Your task to perform on an android device: move an email to a new category in the gmail app Image 0: 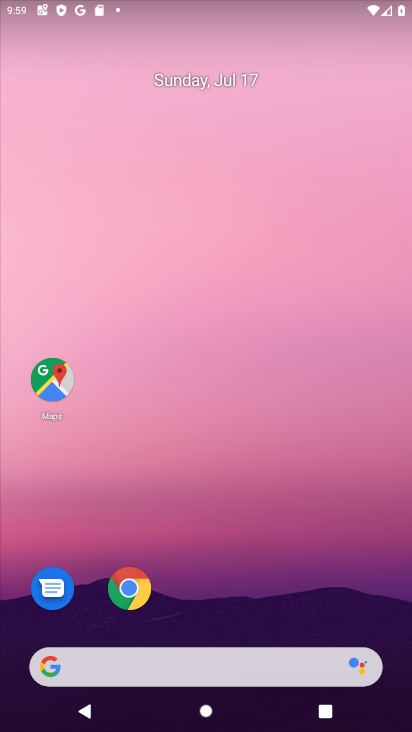
Step 0: drag from (180, 576) to (168, 2)
Your task to perform on an android device: move an email to a new category in the gmail app Image 1: 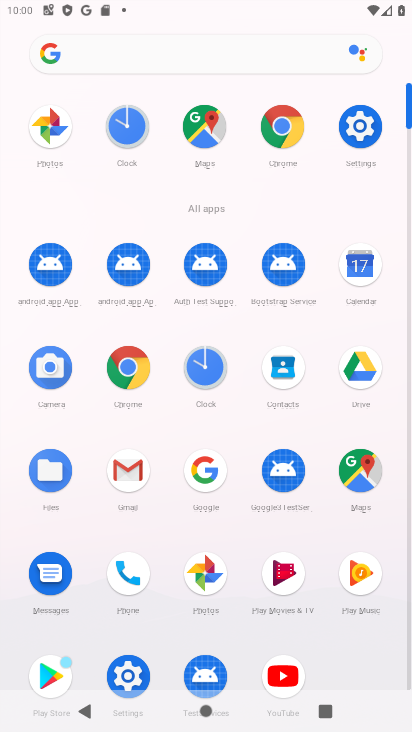
Step 1: click (134, 472)
Your task to perform on an android device: move an email to a new category in the gmail app Image 2: 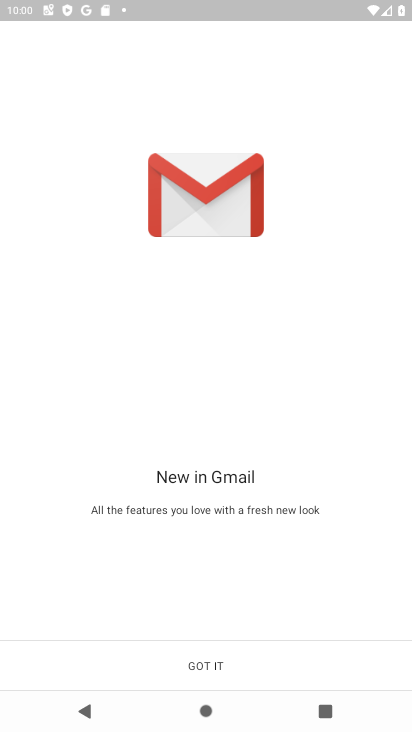
Step 2: click (177, 661)
Your task to perform on an android device: move an email to a new category in the gmail app Image 3: 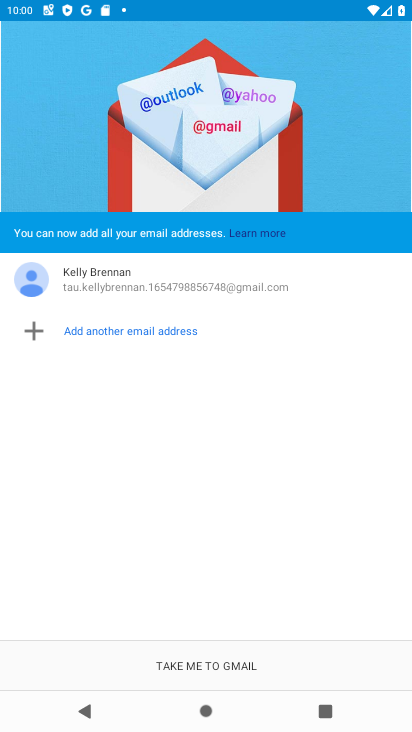
Step 3: click (184, 657)
Your task to perform on an android device: move an email to a new category in the gmail app Image 4: 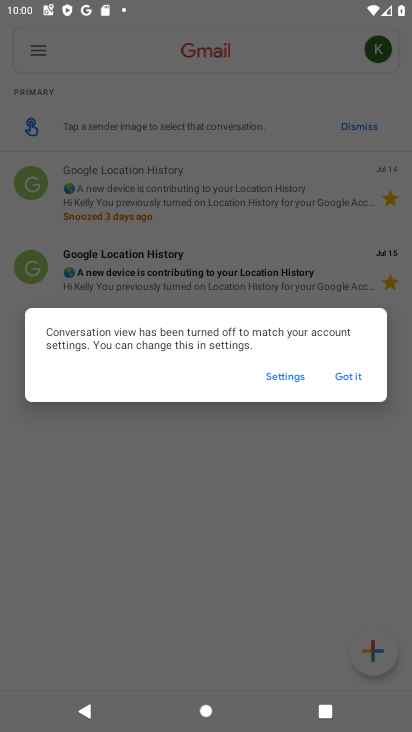
Step 4: click (363, 370)
Your task to perform on an android device: move an email to a new category in the gmail app Image 5: 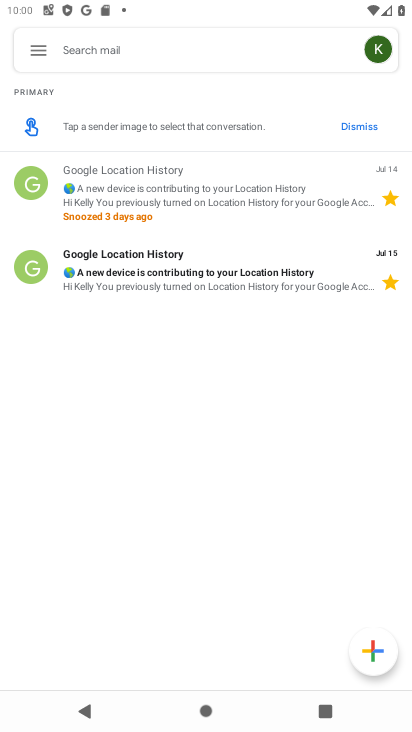
Step 5: click (136, 205)
Your task to perform on an android device: move an email to a new category in the gmail app Image 6: 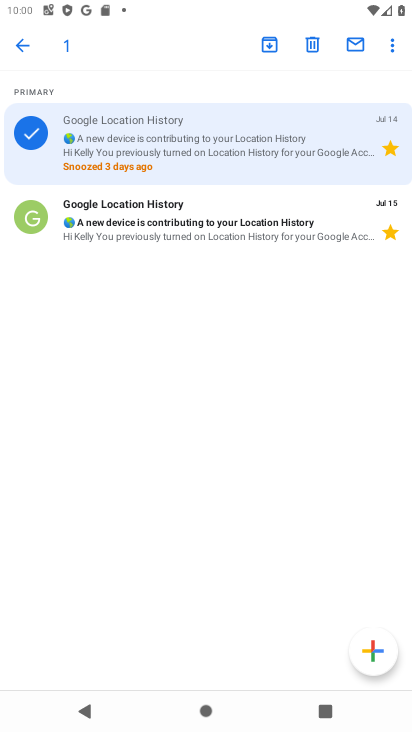
Step 6: click (390, 42)
Your task to perform on an android device: move an email to a new category in the gmail app Image 7: 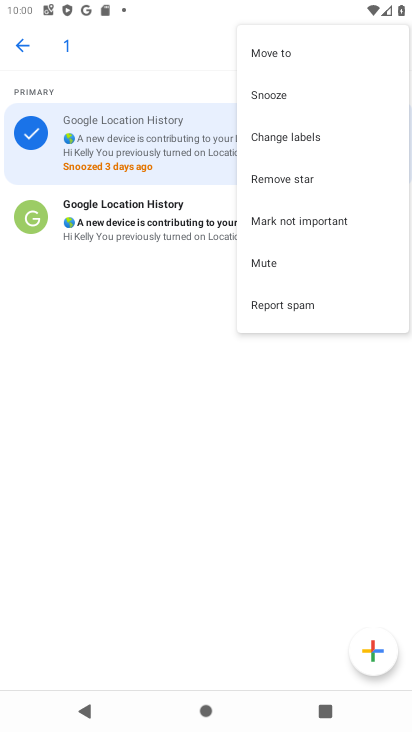
Step 7: click (293, 133)
Your task to perform on an android device: move an email to a new category in the gmail app Image 8: 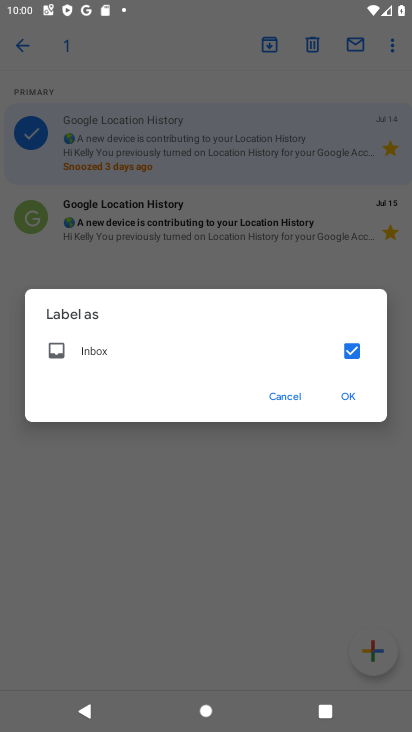
Step 8: click (351, 395)
Your task to perform on an android device: move an email to a new category in the gmail app Image 9: 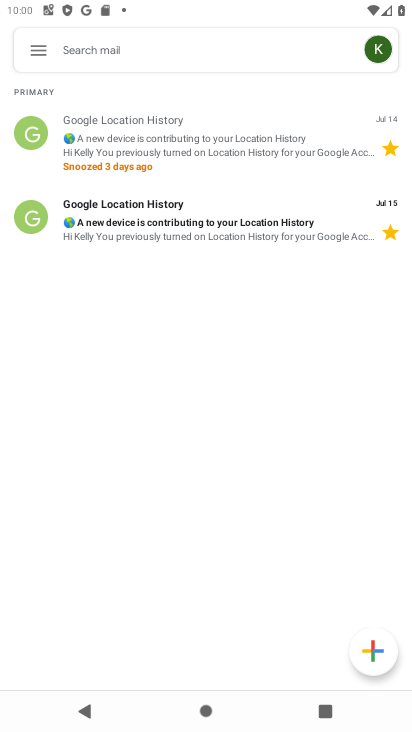
Step 9: task complete